Your task to perform on an android device: Go to Reddit.com Image 0: 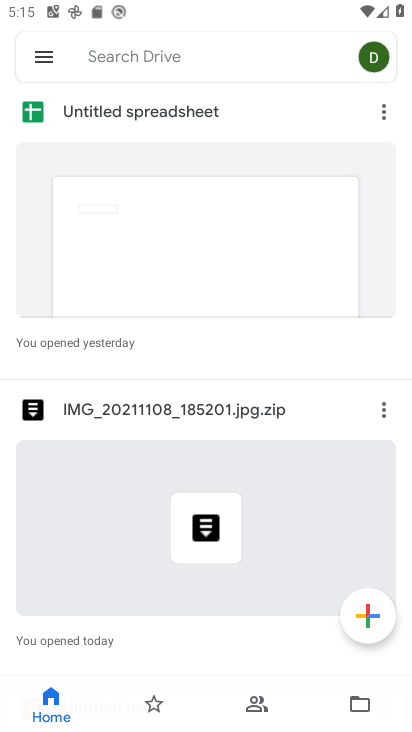
Step 0: press home button
Your task to perform on an android device: Go to Reddit.com Image 1: 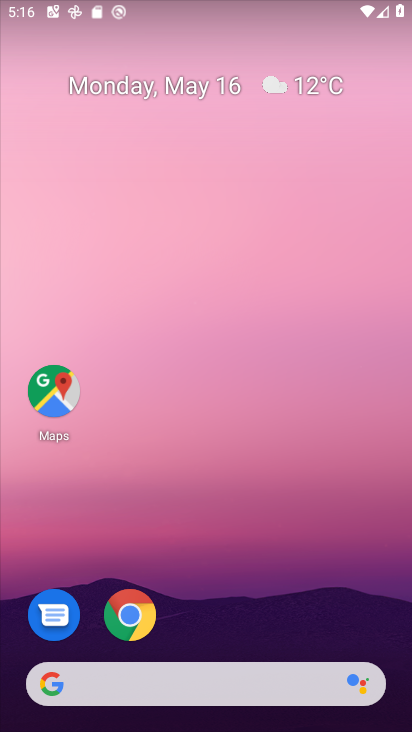
Step 1: click (411, 574)
Your task to perform on an android device: Go to Reddit.com Image 2: 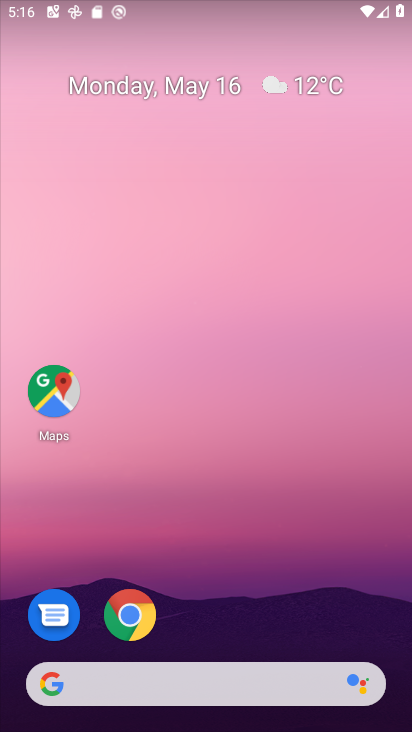
Step 2: click (137, 619)
Your task to perform on an android device: Go to Reddit.com Image 3: 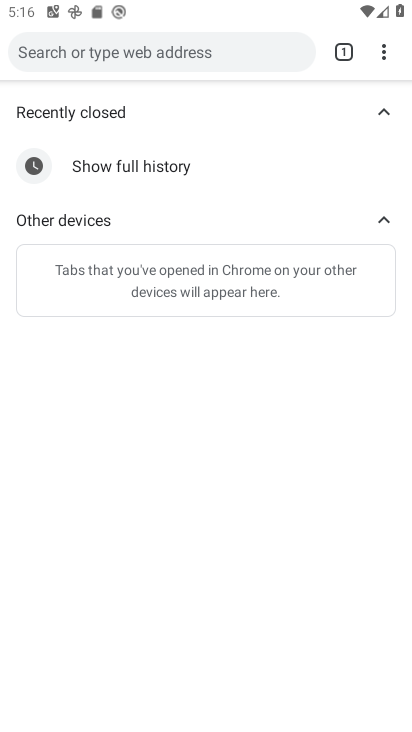
Step 3: click (153, 51)
Your task to perform on an android device: Go to Reddit.com Image 4: 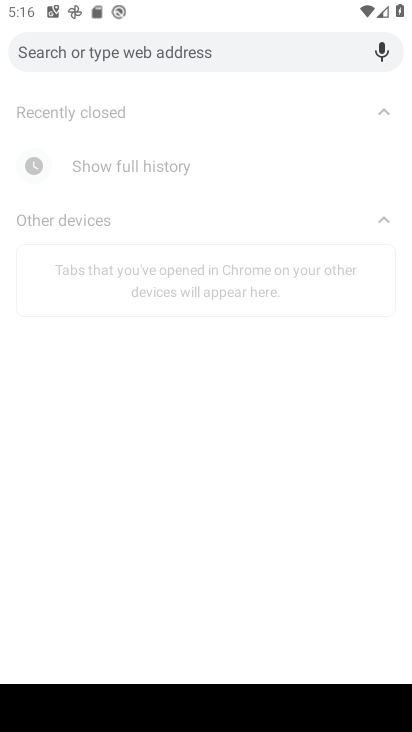
Step 4: type "www.reddit.com"
Your task to perform on an android device: Go to Reddit.com Image 5: 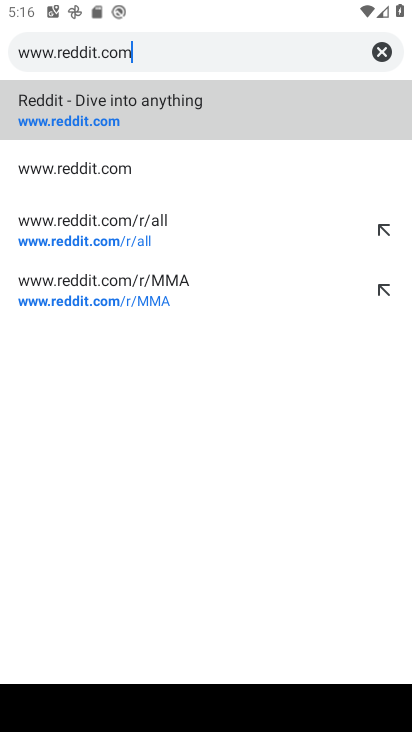
Step 5: click (66, 117)
Your task to perform on an android device: Go to Reddit.com Image 6: 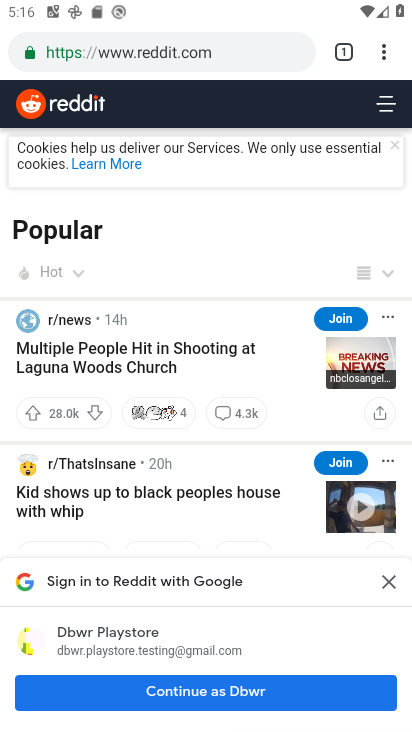
Step 6: task complete